Your task to perform on an android device: turn on showing notifications on the lock screen Image 0: 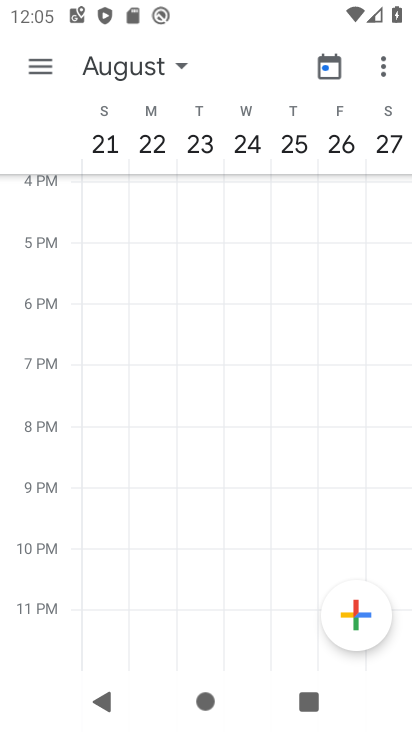
Step 0: press home button
Your task to perform on an android device: turn on showing notifications on the lock screen Image 1: 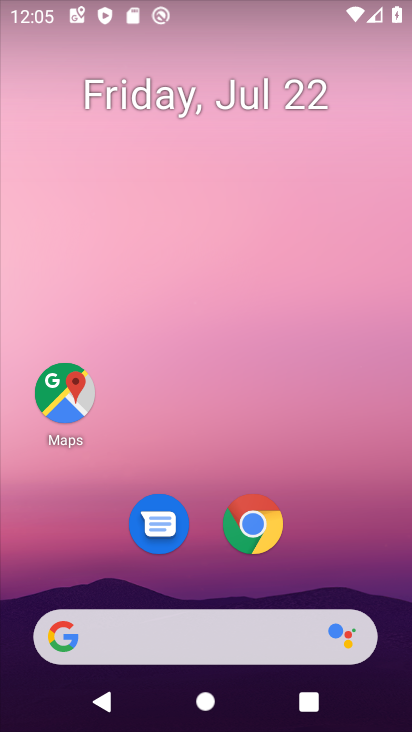
Step 1: drag from (341, 534) to (350, 104)
Your task to perform on an android device: turn on showing notifications on the lock screen Image 2: 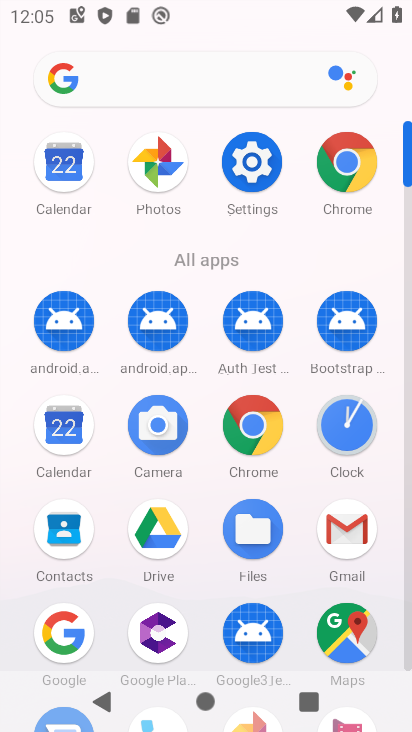
Step 2: click (251, 163)
Your task to perform on an android device: turn on showing notifications on the lock screen Image 3: 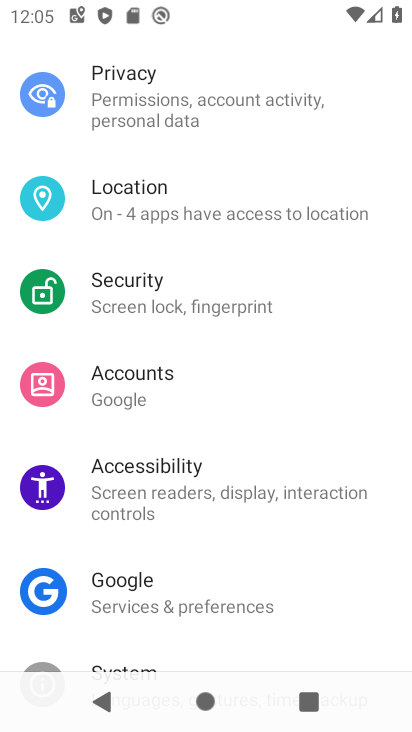
Step 3: drag from (258, 192) to (264, 626)
Your task to perform on an android device: turn on showing notifications on the lock screen Image 4: 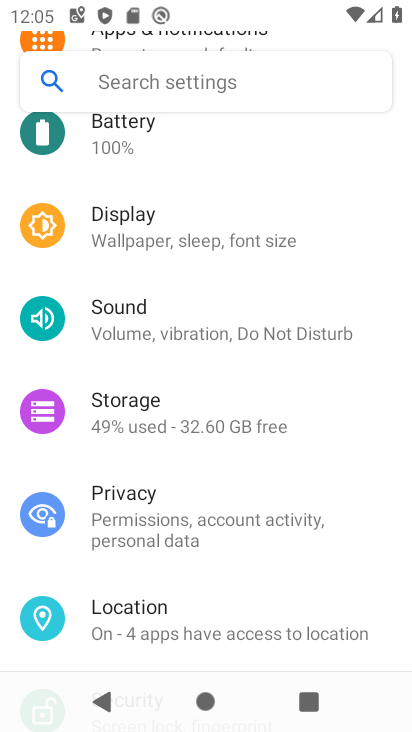
Step 4: drag from (284, 179) to (287, 573)
Your task to perform on an android device: turn on showing notifications on the lock screen Image 5: 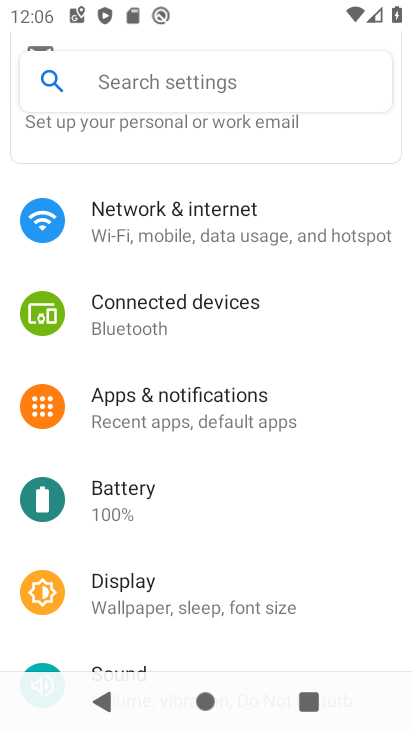
Step 5: click (212, 402)
Your task to perform on an android device: turn on showing notifications on the lock screen Image 6: 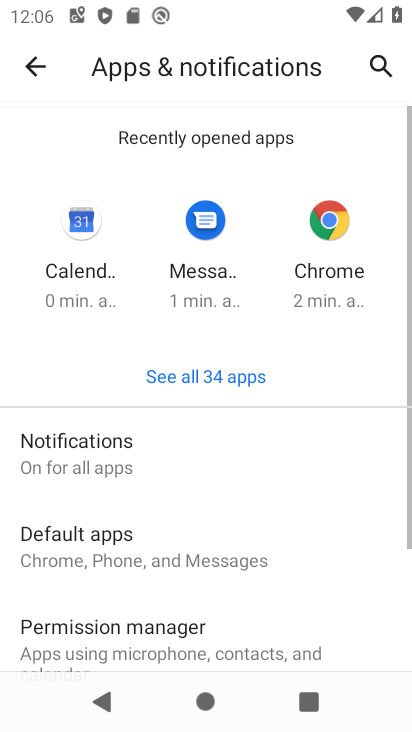
Step 6: click (116, 438)
Your task to perform on an android device: turn on showing notifications on the lock screen Image 7: 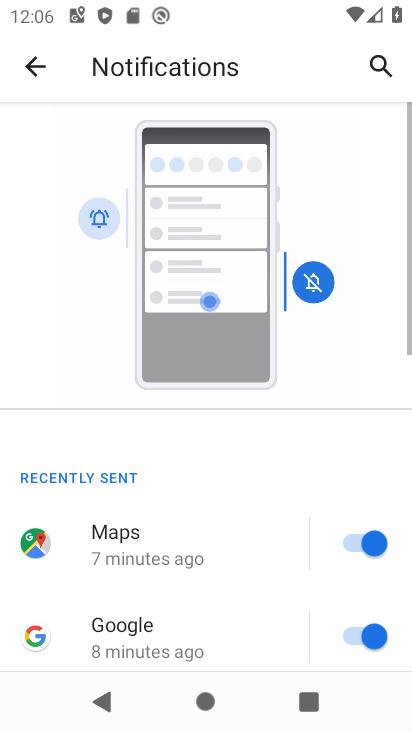
Step 7: task complete